Your task to perform on an android device: toggle sleep mode Image 0: 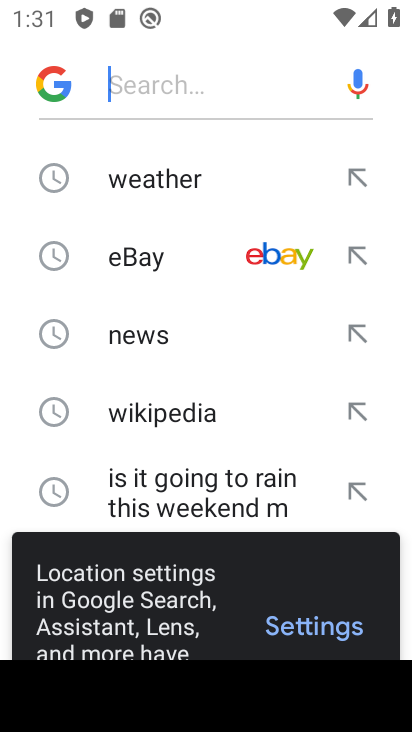
Step 0: press home button
Your task to perform on an android device: toggle sleep mode Image 1: 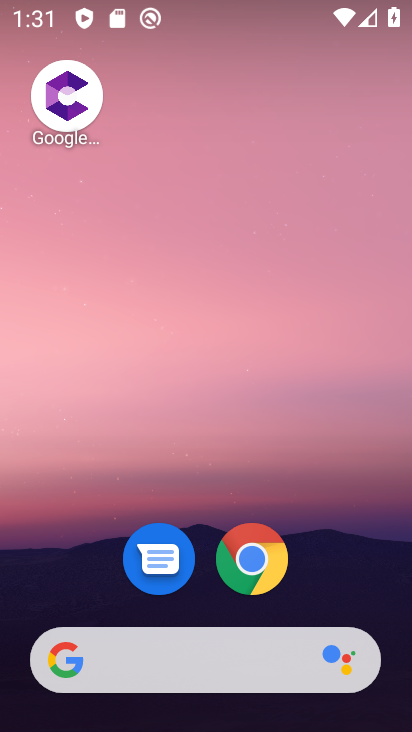
Step 1: drag from (338, 557) to (277, 232)
Your task to perform on an android device: toggle sleep mode Image 2: 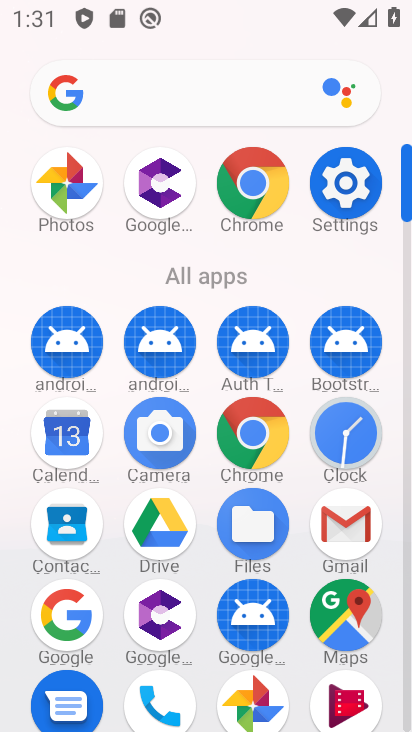
Step 2: click (347, 192)
Your task to perform on an android device: toggle sleep mode Image 3: 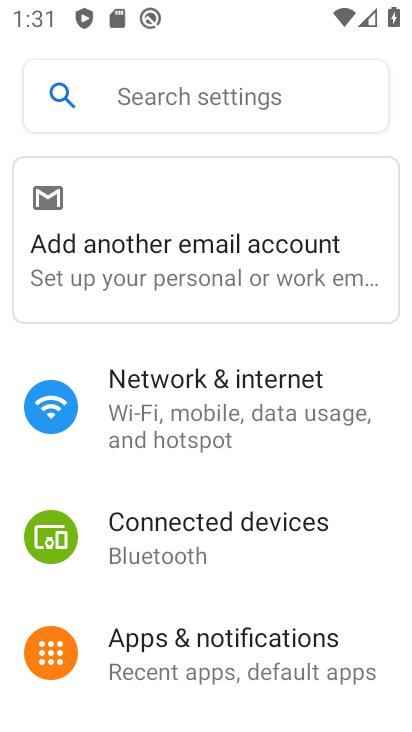
Step 3: drag from (297, 659) to (261, 313)
Your task to perform on an android device: toggle sleep mode Image 4: 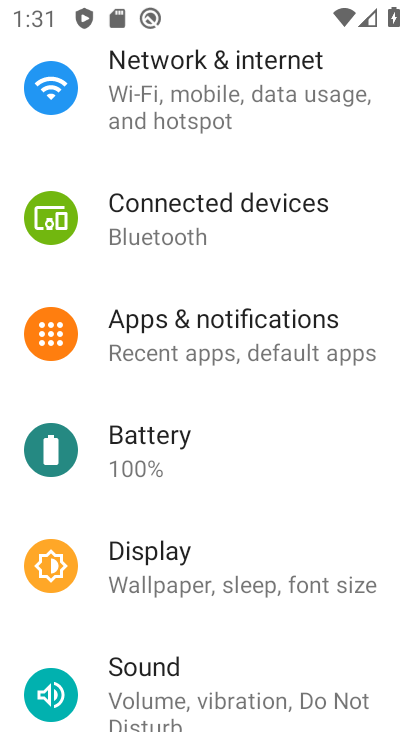
Step 4: click (266, 576)
Your task to perform on an android device: toggle sleep mode Image 5: 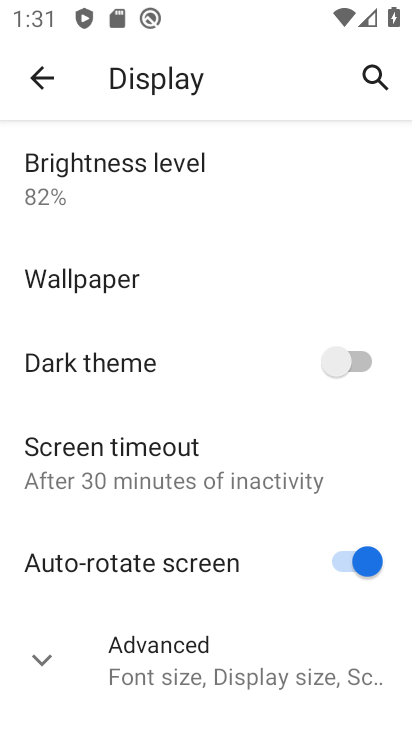
Step 5: drag from (273, 691) to (229, 258)
Your task to perform on an android device: toggle sleep mode Image 6: 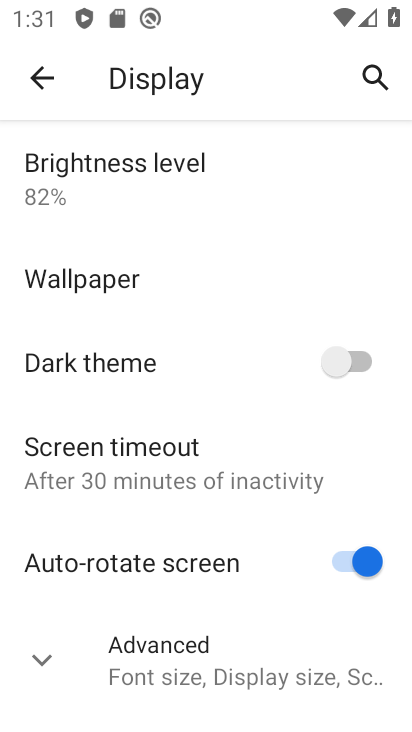
Step 6: click (240, 645)
Your task to perform on an android device: toggle sleep mode Image 7: 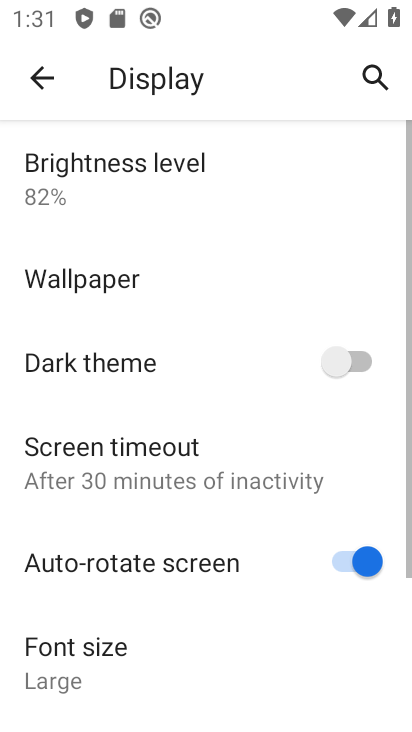
Step 7: task complete